Your task to perform on an android device: Open Chrome and go to the settings page Image 0: 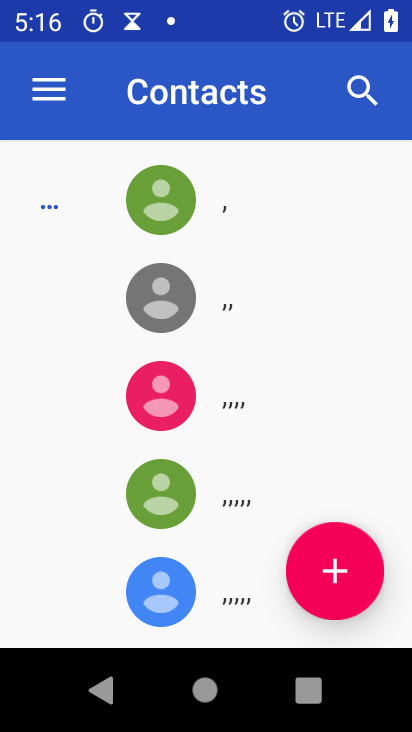
Step 0: task complete